Your task to perform on an android device: Go to battery settings Image 0: 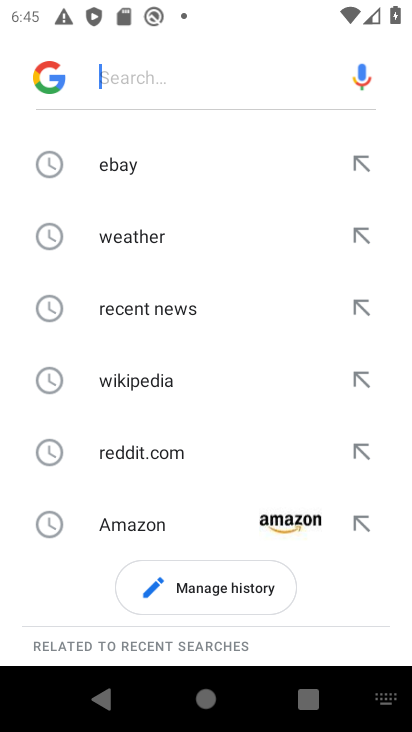
Step 0: press home button
Your task to perform on an android device: Go to battery settings Image 1: 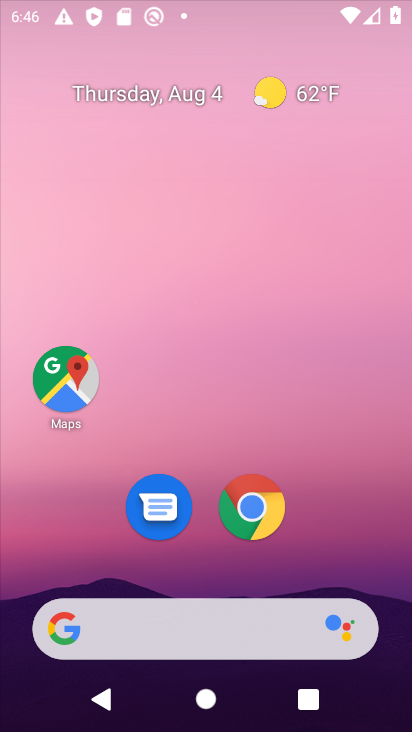
Step 1: drag from (376, 615) to (266, 33)
Your task to perform on an android device: Go to battery settings Image 2: 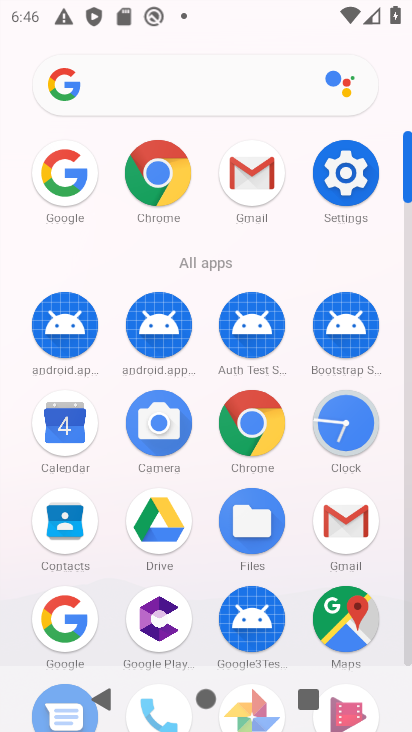
Step 2: click (319, 173)
Your task to perform on an android device: Go to battery settings Image 3: 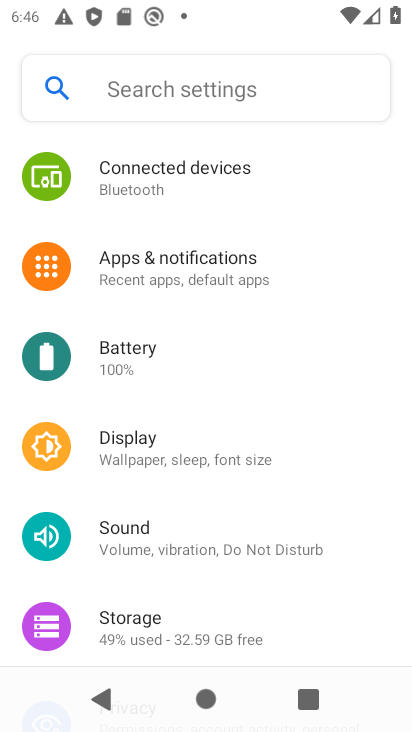
Step 3: click (100, 344)
Your task to perform on an android device: Go to battery settings Image 4: 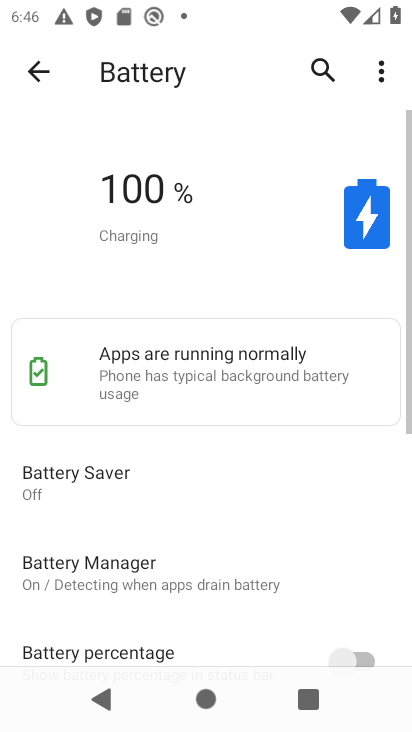
Step 4: task complete